Your task to perform on an android device: Search for the new Jordans on Nike.com Image 0: 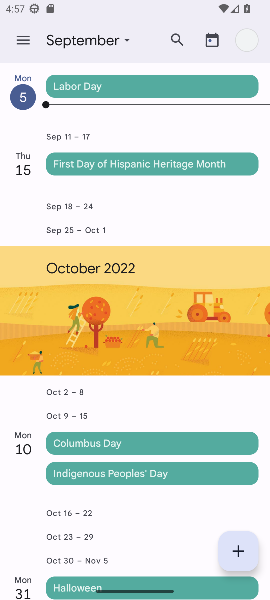
Step 0: press home button
Your task to perform on an android device: Search for the new Jordans on Nike.com Image 1: 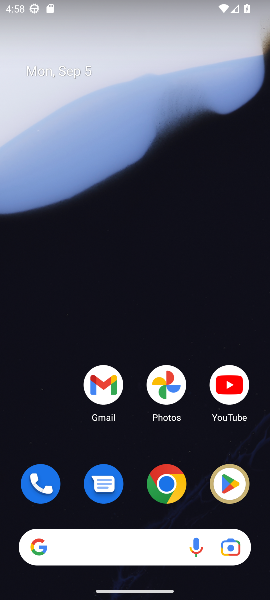
Step 1: click (164, 480)
Your task to perform on an android device: Search for the new Jordans on Nike.com Image 2: 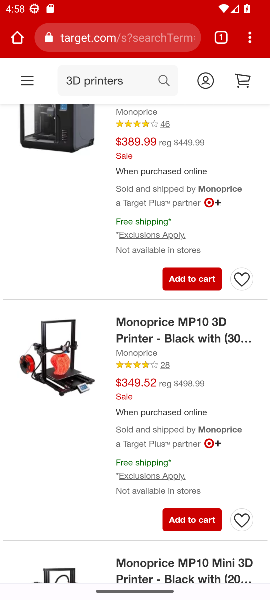
Step 2: click (158, 40)
Your task to perform on an android device: Search for the new Jordans on Nike.com Image 3: 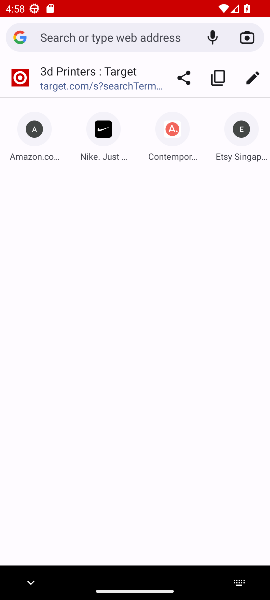
Step 3: type "Nike.com"
Your task to perform on an android device: Search for the new Jordans on Nike.com Image 4: 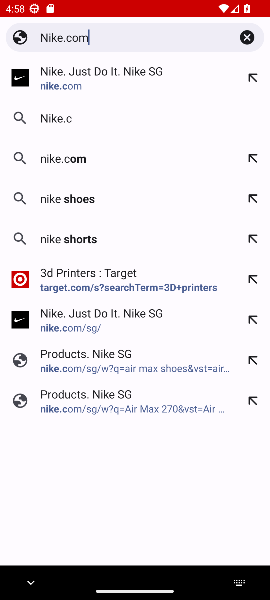
Step 4: press enter
Your task to perform on an android device: Search for the new Jordans on Nike.com Image 5: 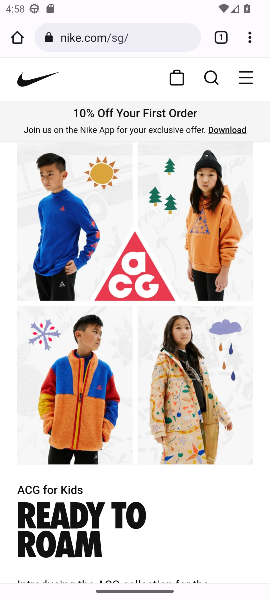
Step 5: click (202, 69)
Your task to perform on an android device: Search for the new Jordans on Nike.com Image 6: 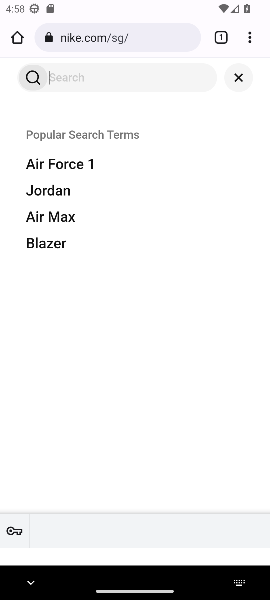
Step 6: click (130, 81)
Your task to perform on an android device: Search for the new Jordans on Nike.com Image 7: 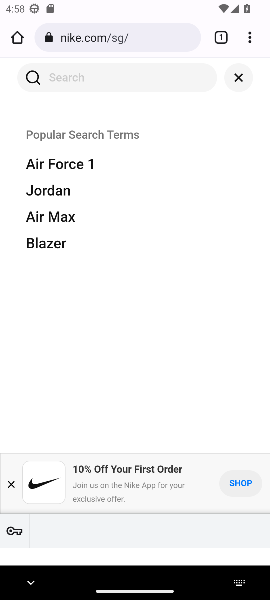
Step 7: type "new Jordans"
Your task to perform on an android device: Search for the new Jordans on Nike.com Image 8: 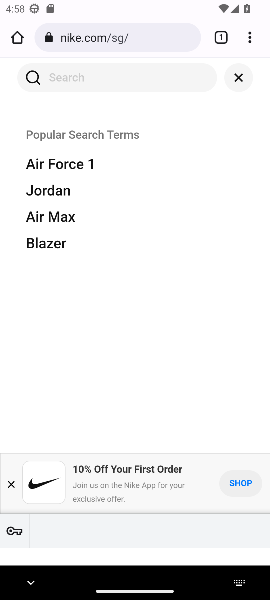
Step 8: press enter
Your task to perform on an android device: Search for the new Jordans on Nike.com Image 9: 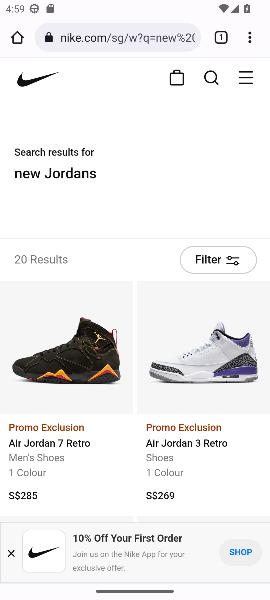
Step 9: task complete